Your task to perform on an android device: Go to wifi settings Image 0: 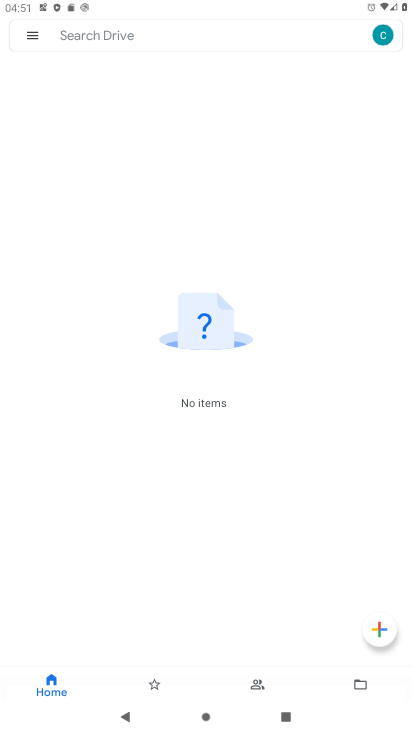
Step 0: press home button
Your task to perform on an android device: Go to wifi settings Image 1: 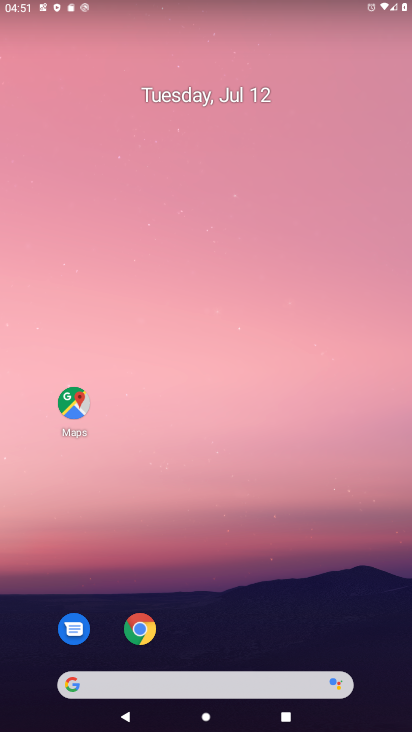
Step 1: drag from (218, 637) to (212, 73)
Your task to perform on an android device: Go to wifi settings Image 2: 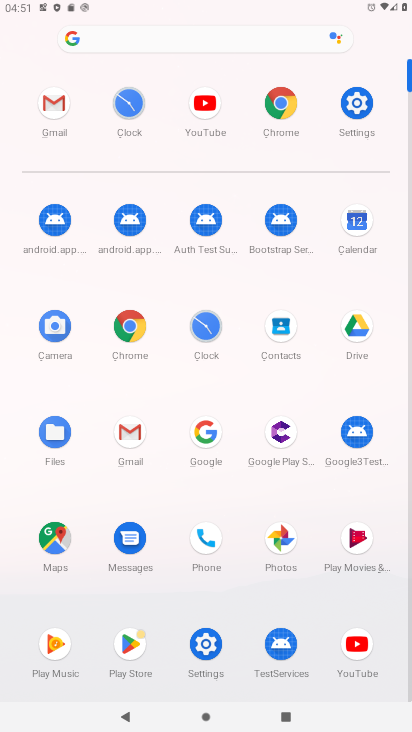
Step 2: click (360, 98)
Your task to perform on an android device: Go to wifi settings Image 3: 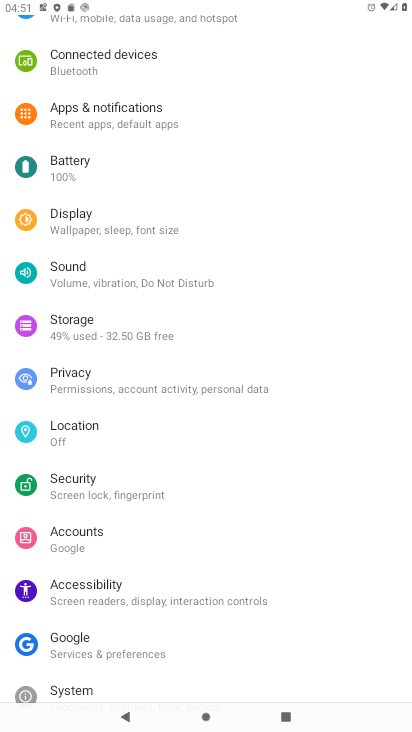
Step 3: drag from (280, 61) to (307, 591)
Your task to perform on an android device: Go to wifi settings Image 4: 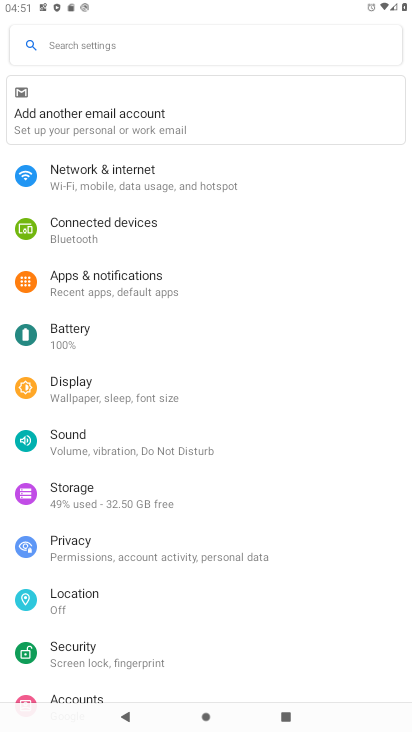
Step 4: click (75, 187)
Your task to perform on an android device: Go to wifi settings Image 5: 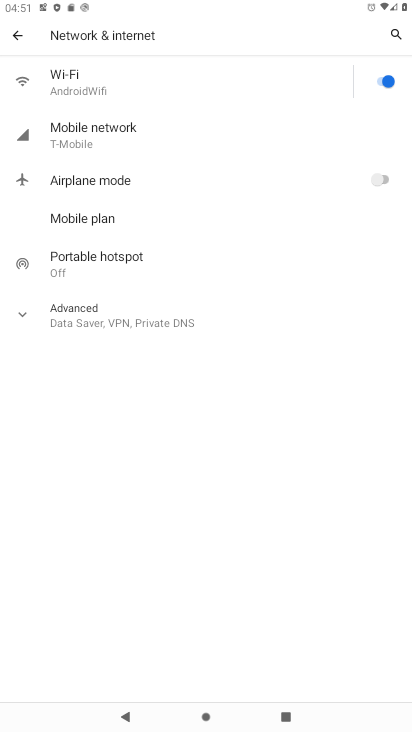
Step 5: click (76, 78)
Your task to perform on an android device: Go to wifi settings Image 6: 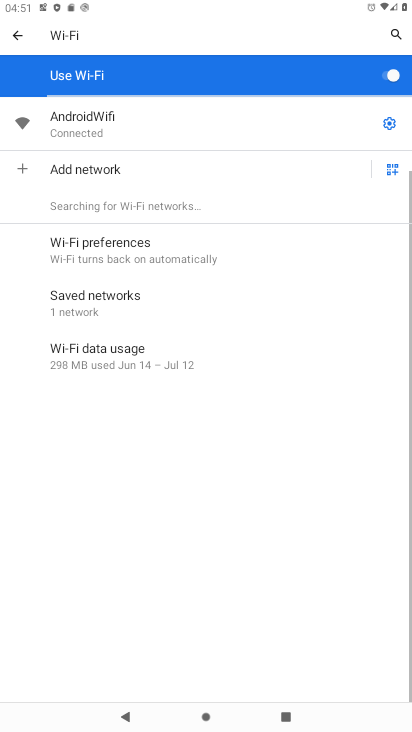
Step 6: task complete